Your task to perform on an android device: move a message to another label in the gmail app Image 0: 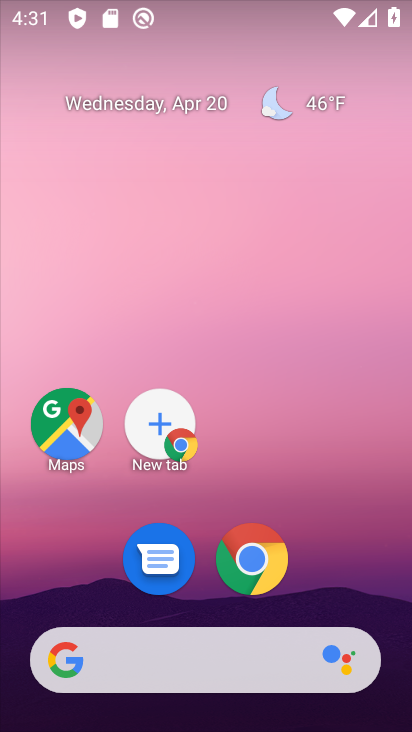
Step 0: click (411, 212)
Your task to perform on an android device: move a message to another label in the gmail app Image 1: 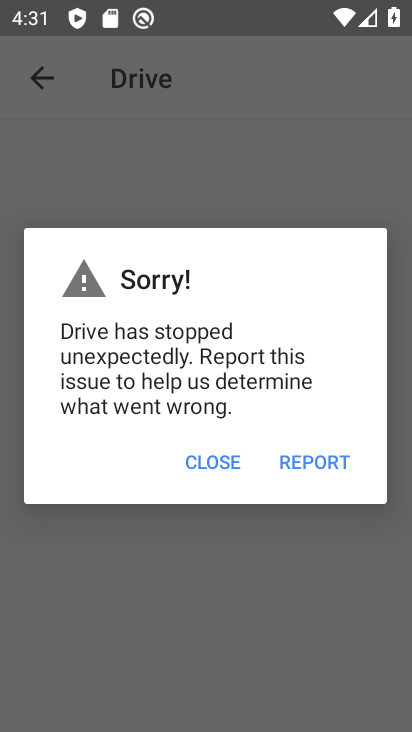
Step 1: click (222, 471)
Your task to perform on an android device: move a message to another label in the gmail app Image 2: 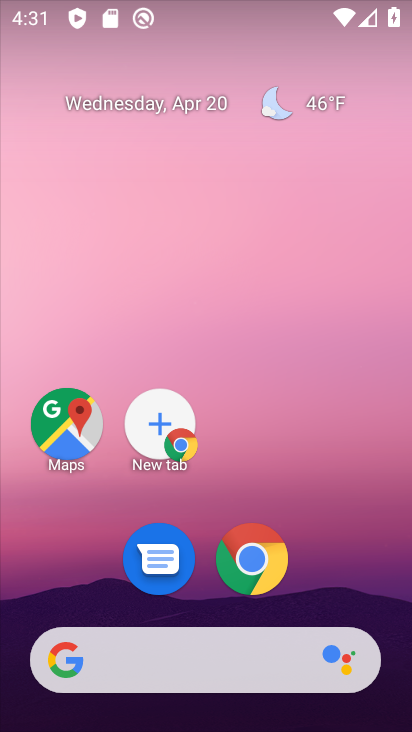
Step 2: drag from (340, 547) to (336, 194)
Your task to perform on an android device: move a message to another label in the gmail app Image 3: 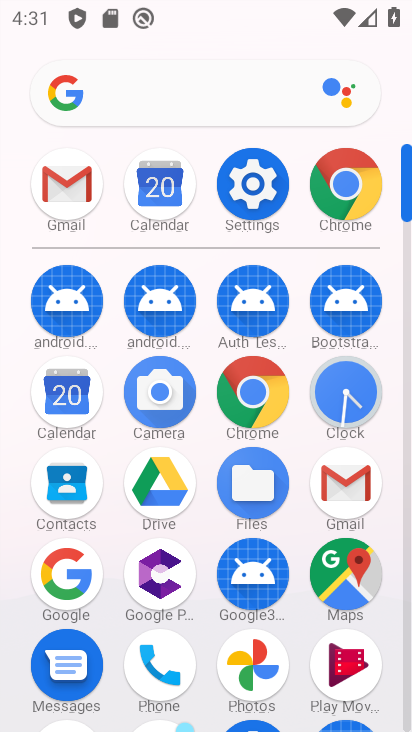
Step 3: click (262, 206)
Your task to perform on an android device: move a message to another label in the gmail app Image 4: 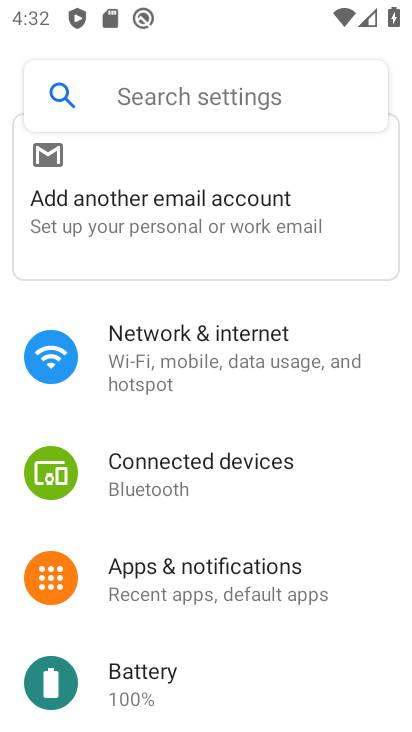
Step 4: press home button
Your task to perform on an android device: move a message to another label in the gmail app Image 5: 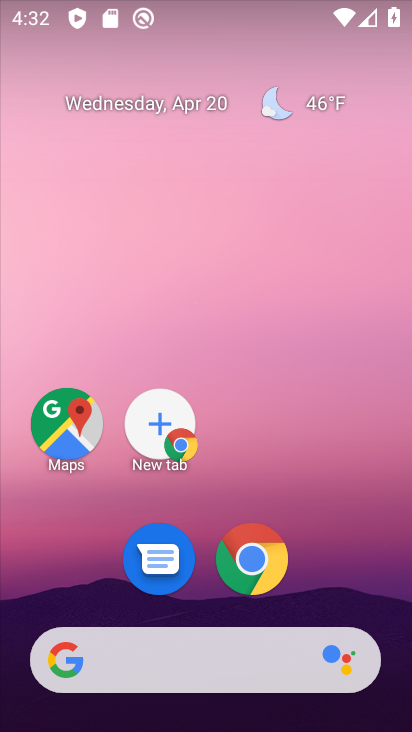
Step 5: drag from (322, 572) to (206, 133)
Your task to perform on an android device: move a message to another label in the gmail app Image 6: 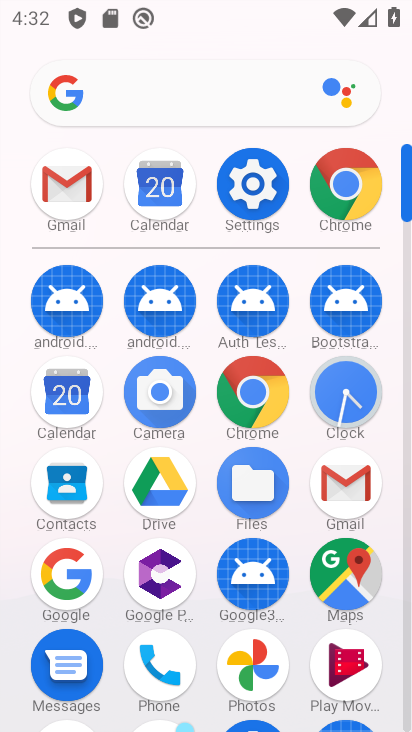
Step 6: click (350, 473)
Your task to perform on an android device: move a message to another label in the gmail app Image 7: 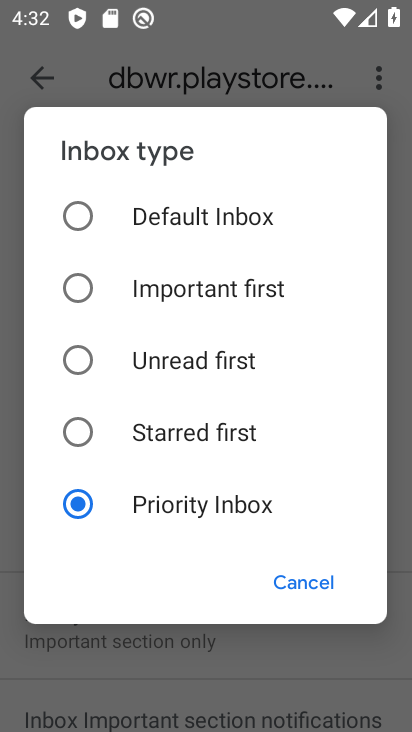
Step 7: click (318, 589)
Your task to perform on an android device: move a message to another label in the gmail app Image 8: 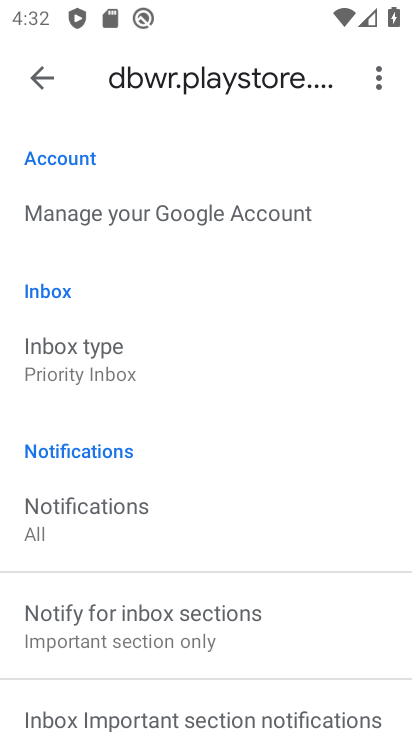
Step 8: click (36, 66)
Your task to perform on an android device: move a message to another label in the gmail app Image 9: 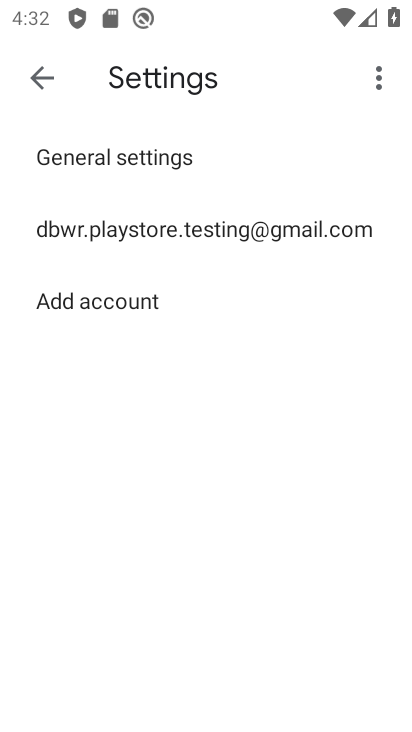
Step 9: click (36, 66)
Your task to perform on an android device: move a message to another label in the gmail app Image 10: 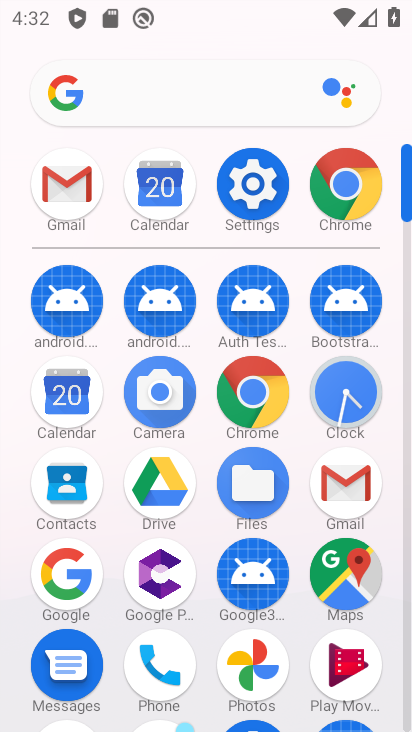
Step 10: click (53, 187)
Your task to perform on an android device: move a message to another label in the gmail app Image 11: 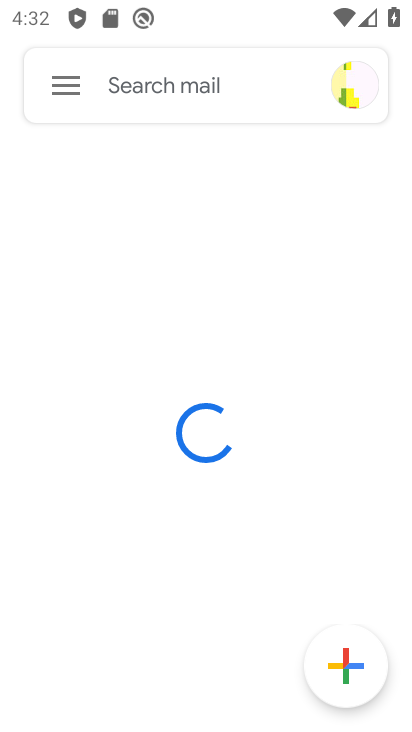
Step 11: click (58, 72)
Your task to perform on an android device: move a message to another label in the gmail app Image 12: 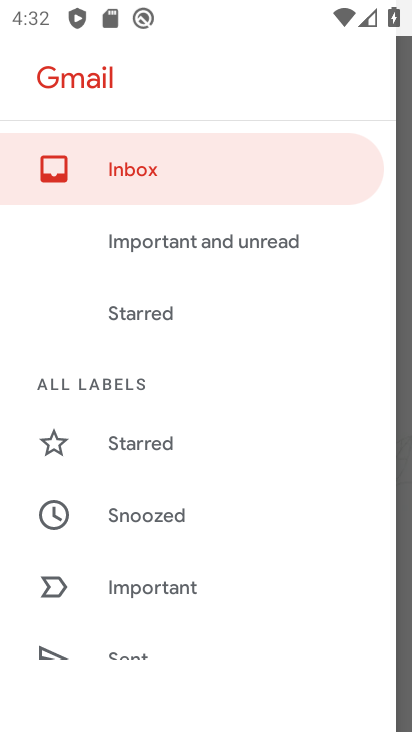
Step 12: drag from (154, 575) to (187, 238)
Your task to perform on an android device: move a message to another label in the gmail app Image 13: 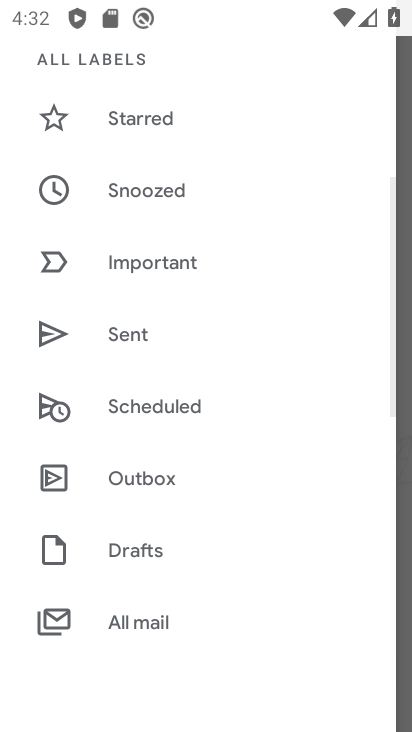
Step 13: click (160, 619)
Your task to perform on an android device: move a message to another label in the gmail app Image 14: 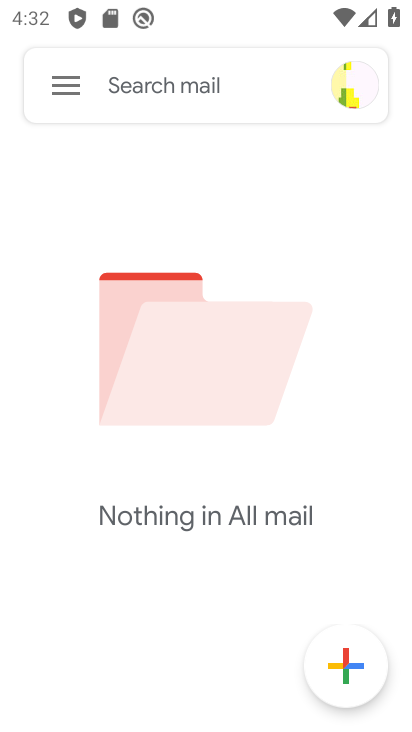
Step 14: task complete